Your task to perform on an android device: turn notification dots on Image 0: 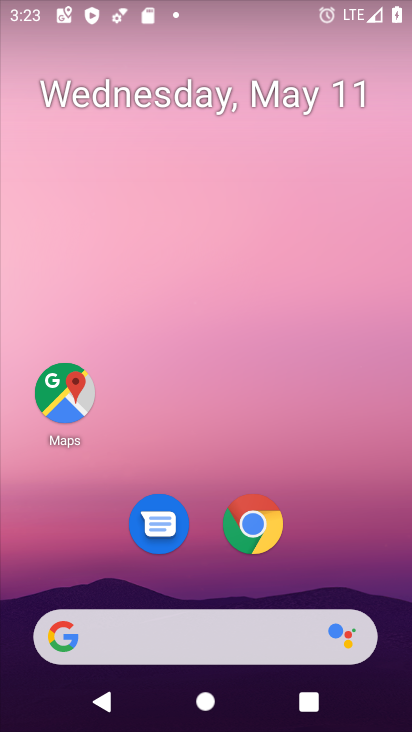
Step 0: drag from (289, 545) to (285, 35)
Your task to perform on an android device: turn notification dots on Image 1: 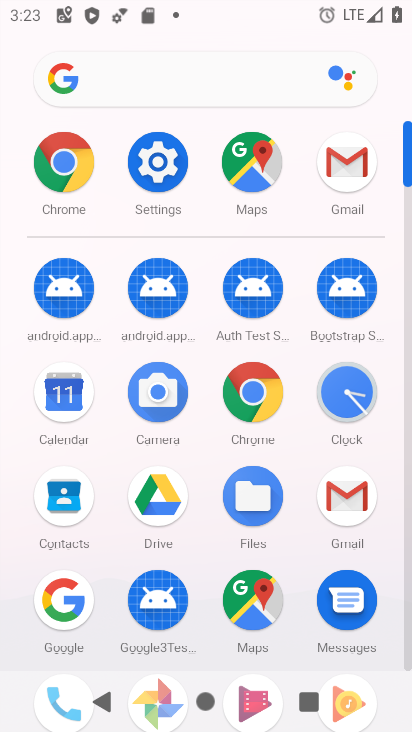
Step 1: click (156, 152)
Your task to perform on an android device: turn notification dots on Image 2: 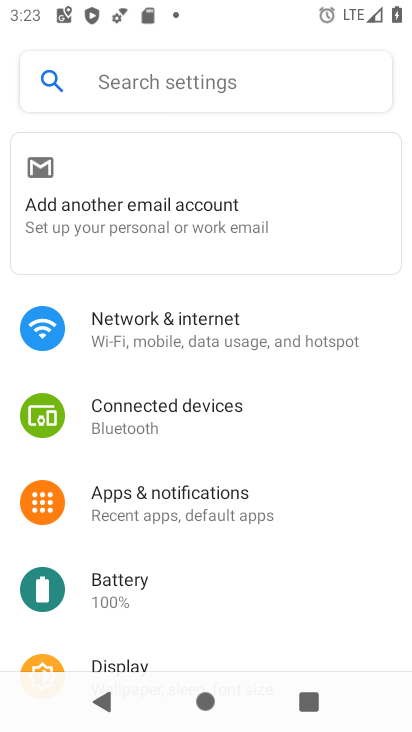
Step 2: click (190, 501)
Your task to perform on an android device: turn notification dots on Image 3: 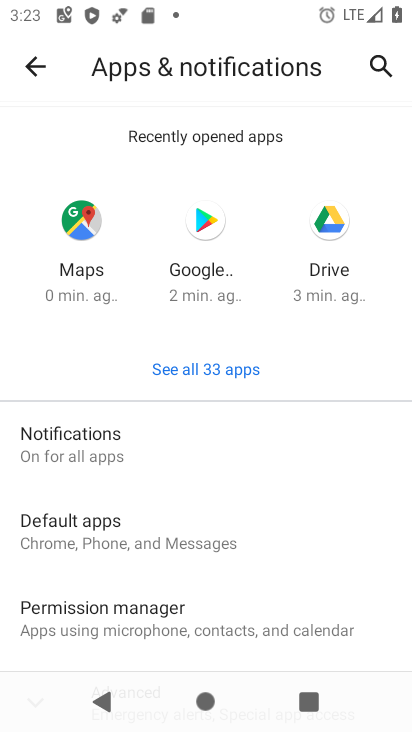
Step 3: click (103, 443)
Your task to perform on an android device: turn notification dots on Image 4: 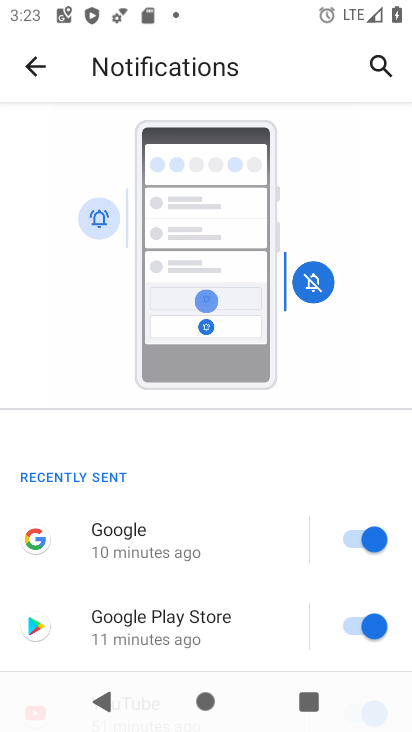
Step 4: drag from (242, 596) to (206, 169)
Your task to perform on an android device: turn notification dots on Image 5: 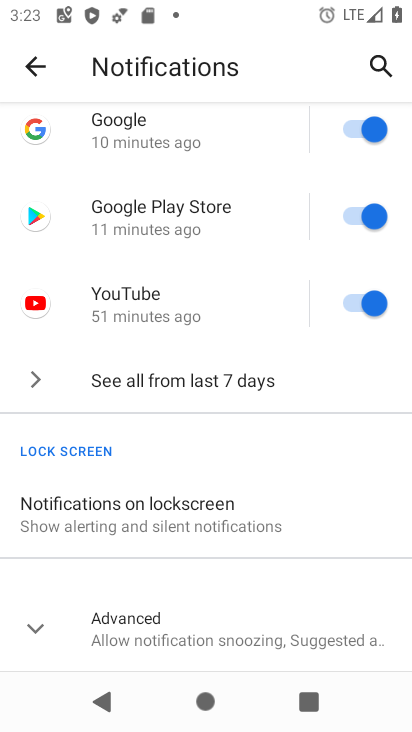
Step 5: drag from (199, 599) to (216, 381)
Your task to perform on an android device: turn notification dots on Image 6: 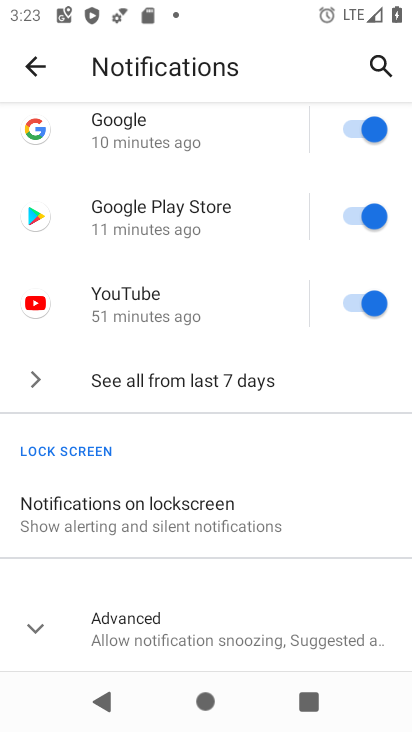
Step 6: click (38, 622)
Your task to perform on an android device: turn notification dots on Image 7: 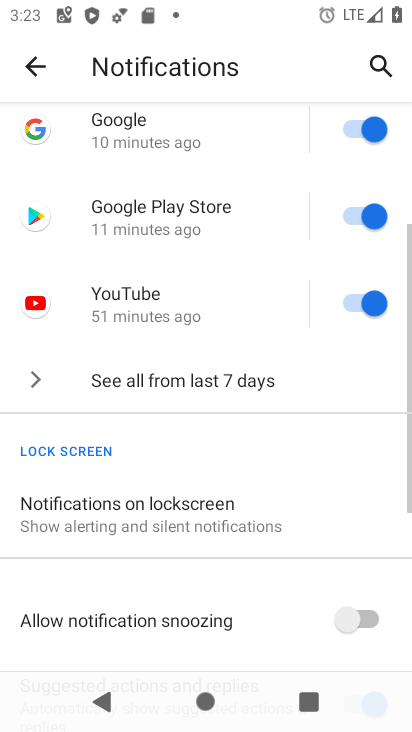
Step 7: drag from (195, 528) to (207, 127)
Your task to perform on an android device: turn notification dots on Image 8: 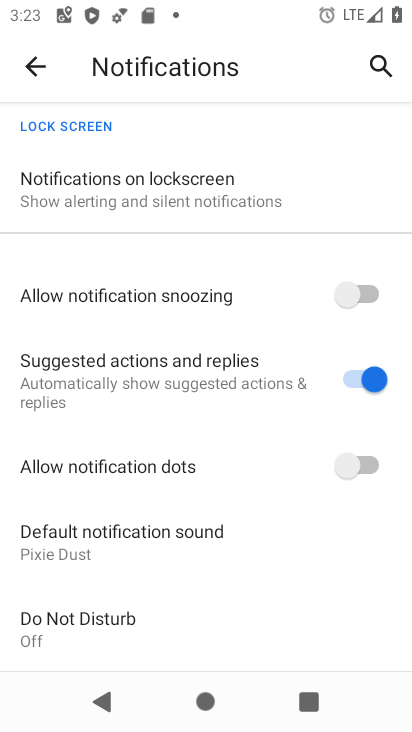
Step 8: click (357, 461)
Your task to perform on an android device: turn notification dots on Image 9: 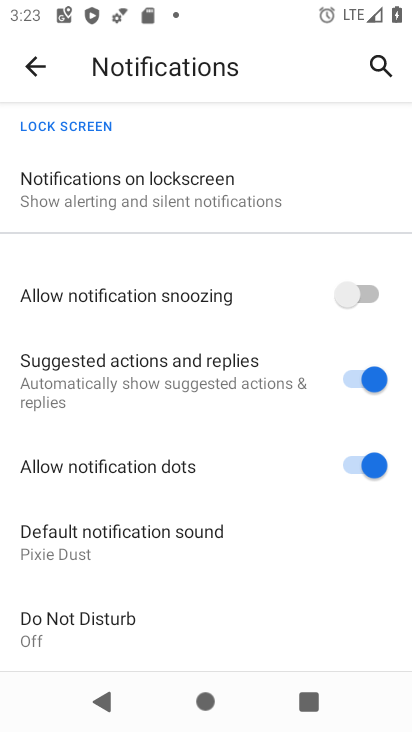
Step 9: task complete